Your task to perform on an android device: Search for "dell xps" on bestbuy, select the first entry, add it to the cart, then select checkout. Image 0: 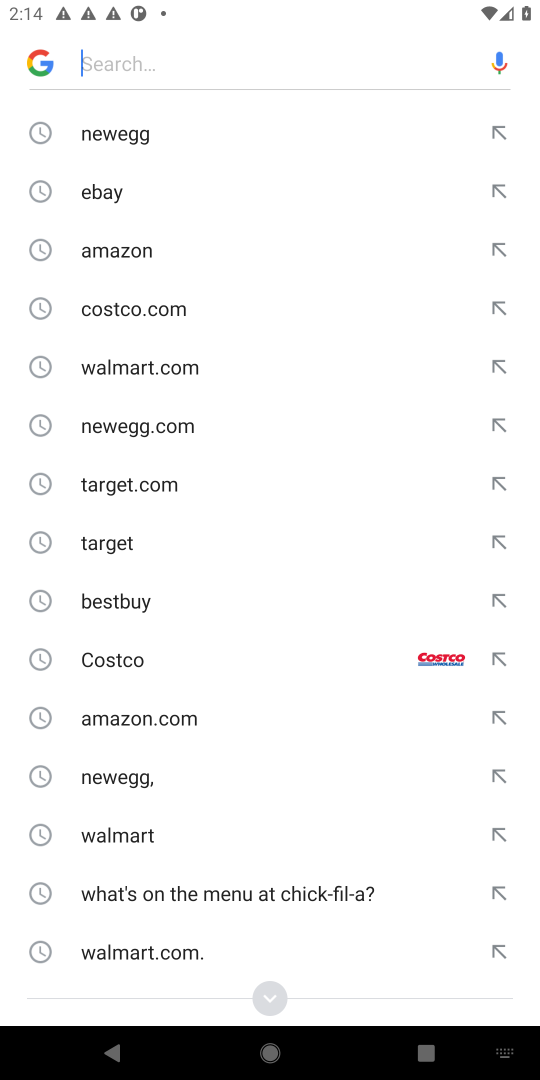
Step 0: click (129, 611)
Your task to perform on an android device: Search for "dell xps" on bestbuy, select the first entry, add it to the cart, then select checkout. Image 1: 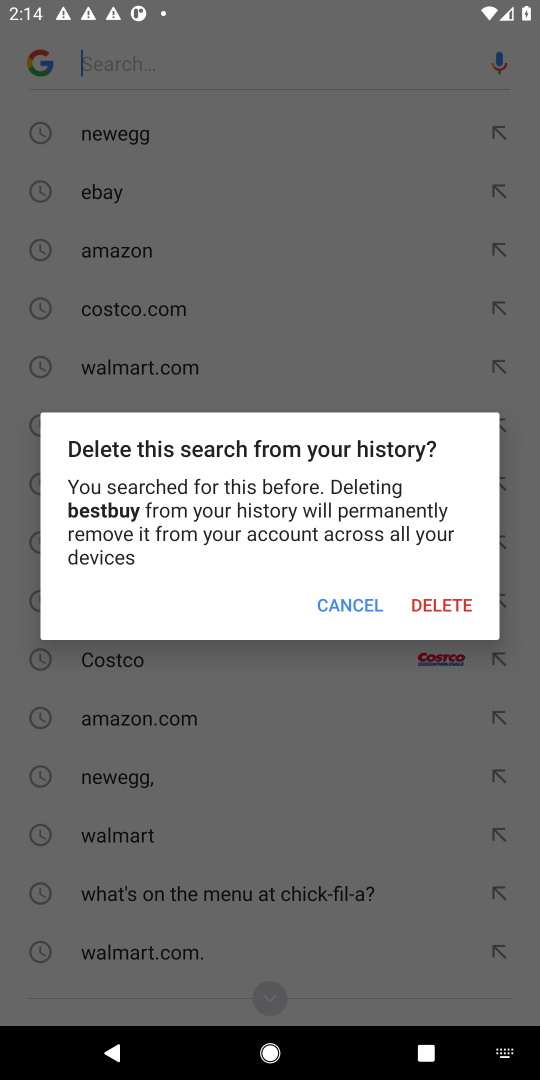
Step 1: click (340, 595)
Your task to perform on an android device: Search for "dell xps" on bestbuy, select the first entry, add it to the cart, then select checkout. Image 2: 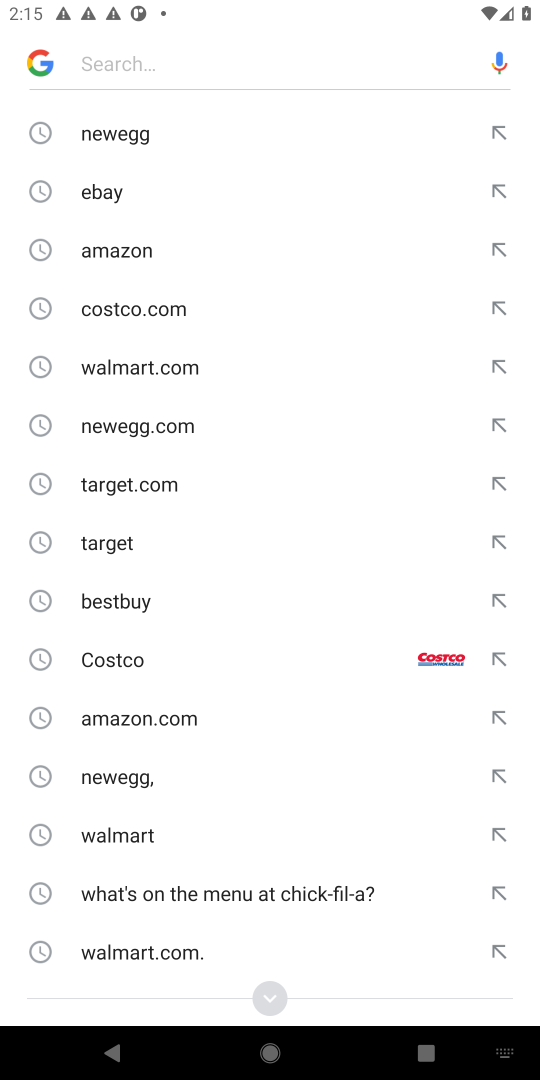
Step 2: click (140, 599)
Your task to perform on an android device: Search for "dell xps" on bestbuy, select the first entry, add it to the cart, then select checkout. Image 3: 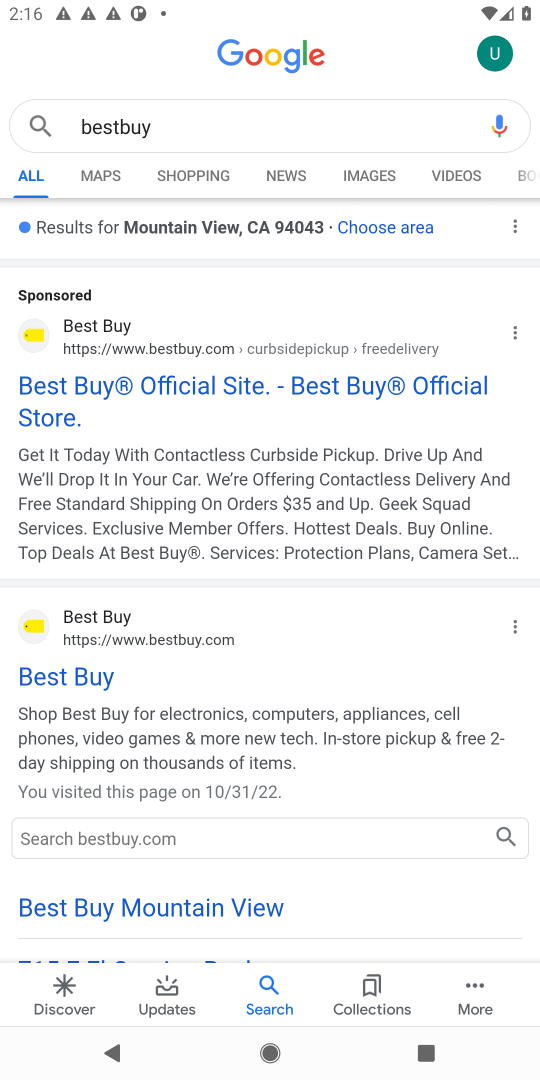
Step 3: click (314, 362)
Your task to perform on an android device: Search for "dell xps" on bestbuy, select the first entry, add it to the cart, then select checkout. Image 4: 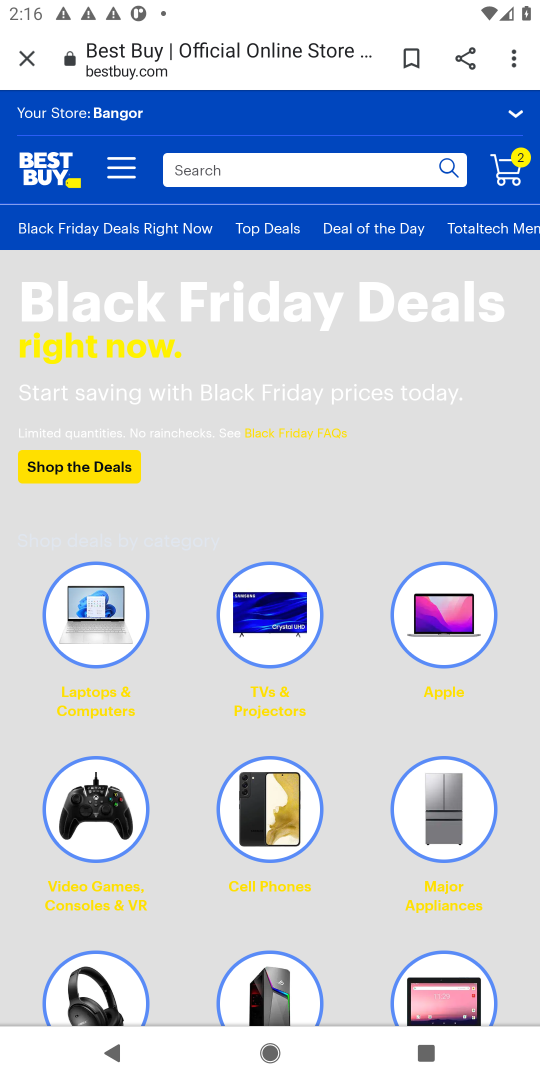
Step 4: click (263, 172)
Your task to perform on an android device: Search for "dell xps" on bestbuy, select the first entry, add it to the cart, then select checkout. Image 5: 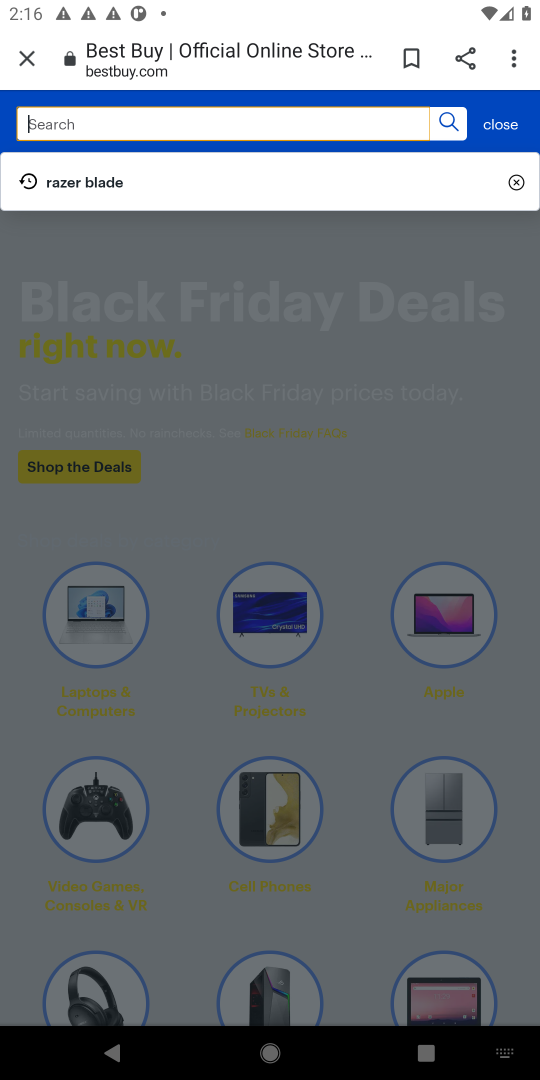
Step 5: type "dell xps"
Your task to perform on an android device: Search for "dell xps" on bestbuy, select the first entry, add it to the cart, then select checkout. Image 6: 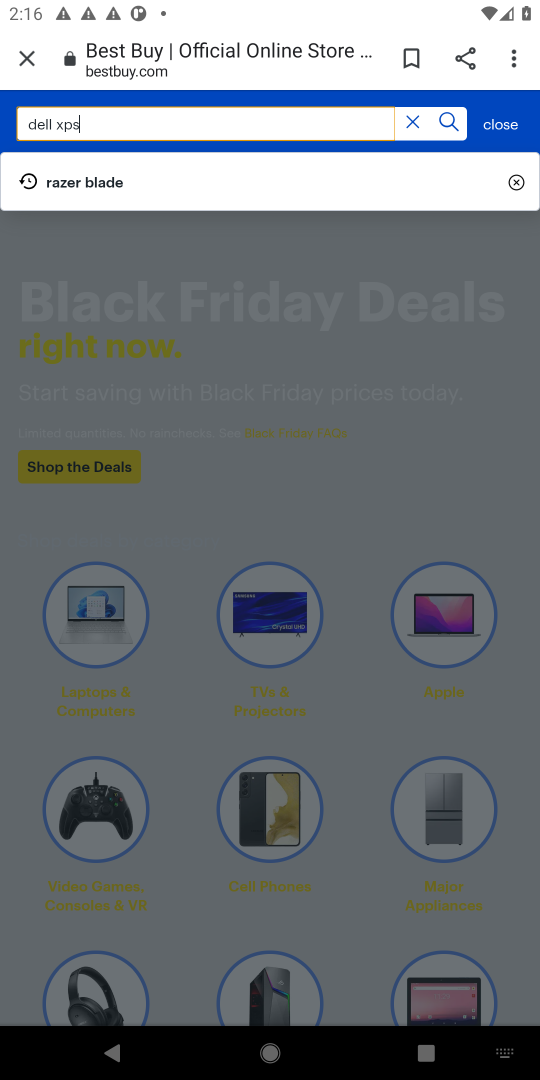
Step 6: type ""
Your task to perform on an android device: Search for "dell xps" on bestbuy, select the first entry, add it to the cart, then select checkout. Image 7: 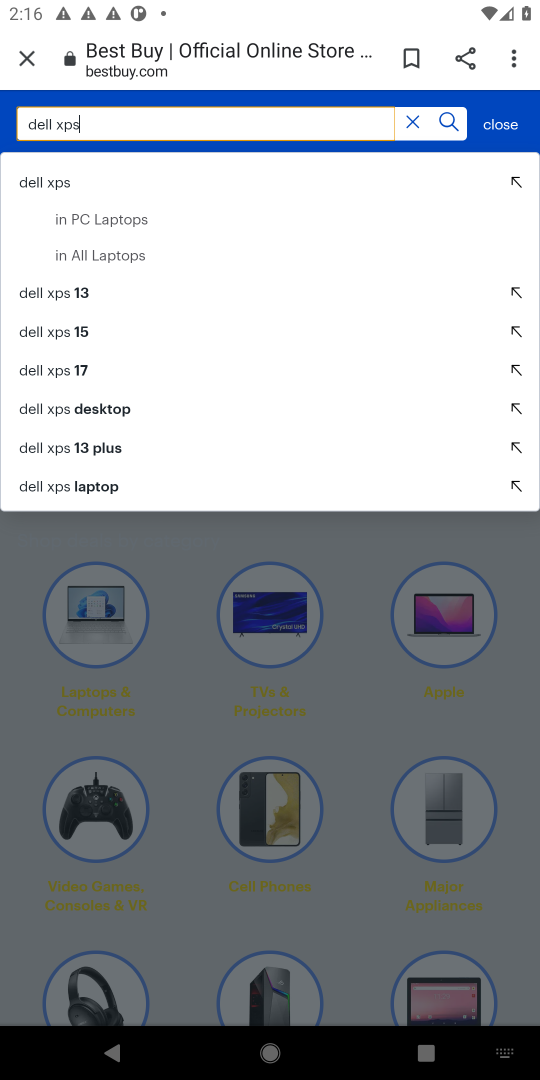
Step 7: press enter
Your task to perform on an android device: Search for "dell xps" on bestbuy, select the first entry, add it to the cart, then select checkout. Image 8: 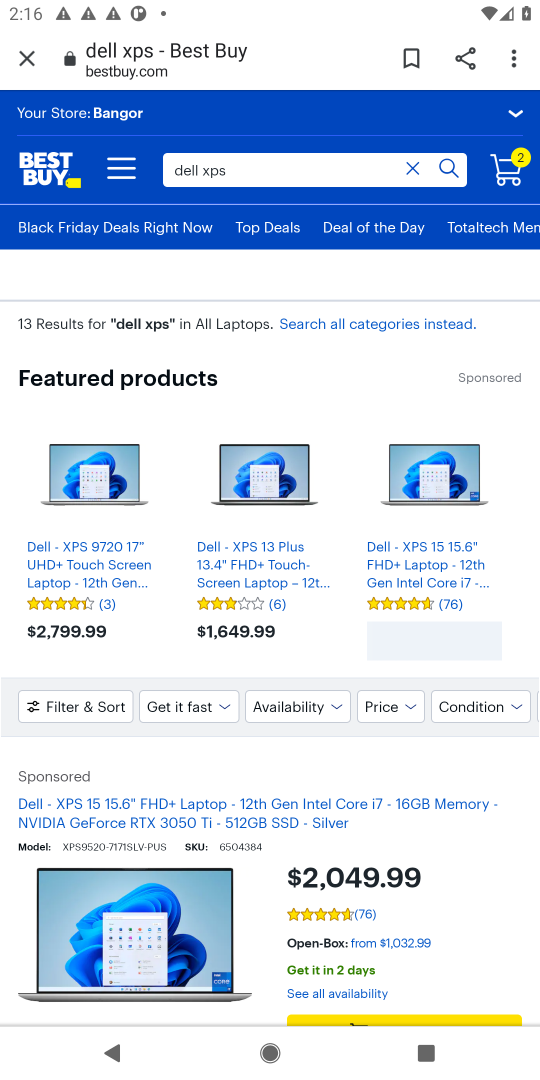
Step 8: click (449, 169)
Your task to perform on an android device: Search for "dell xps" on bestbuy, select the first entry, add it to the cart, then select checkout. Image 9: 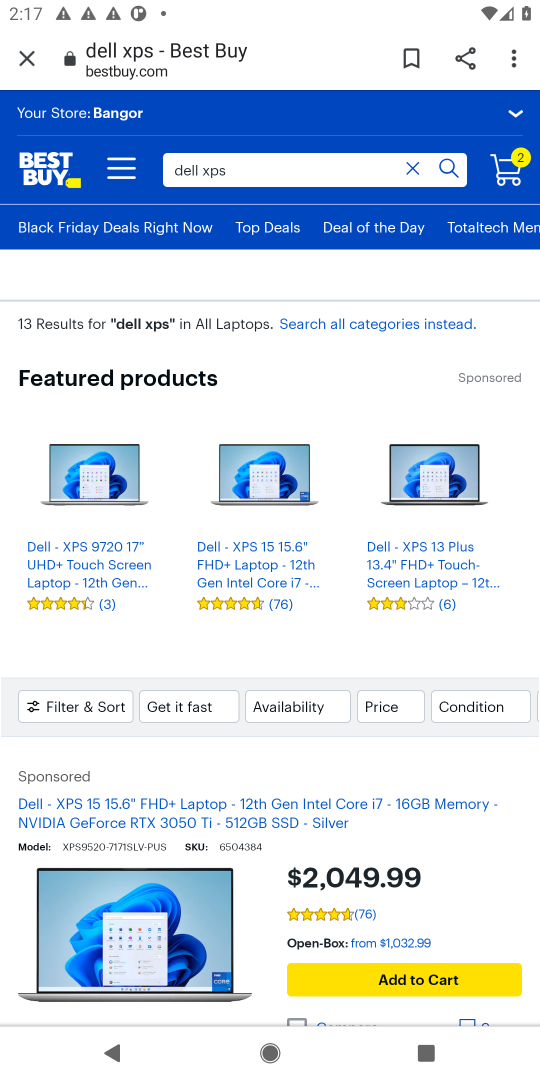
Step 9: drag from (381, 817) to (387, 645)
Your task to perform on an android device: Search for "dell xps" on bestbuy, select the first entry, add it to the cart, then select checkout. Image 10: 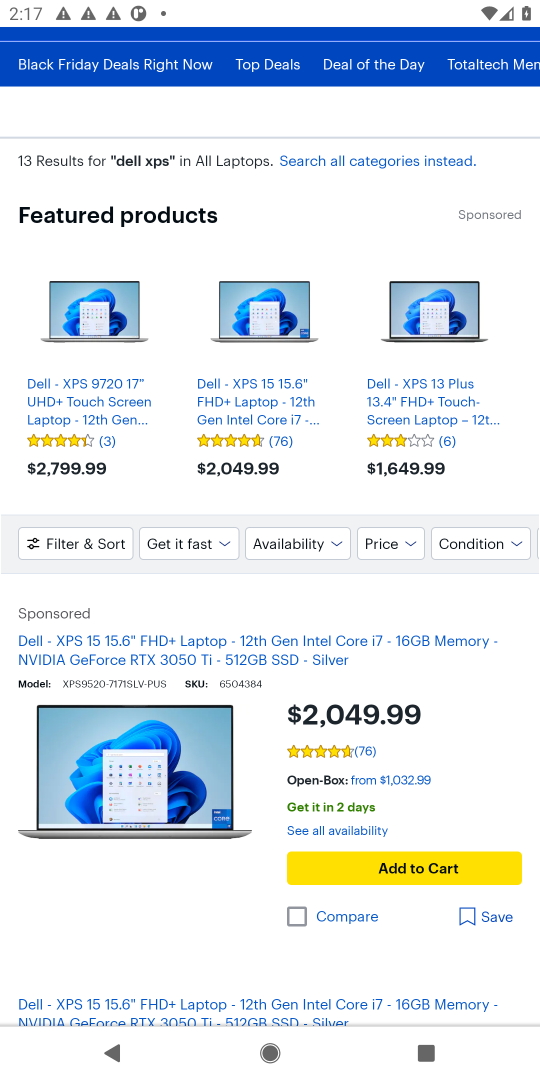
Step 10: click (413, 815)
Your task to perform on an android device: Search for "dell xps" on bestbuy, select the first entry, add it to the cart, then select checkout. Image 11: 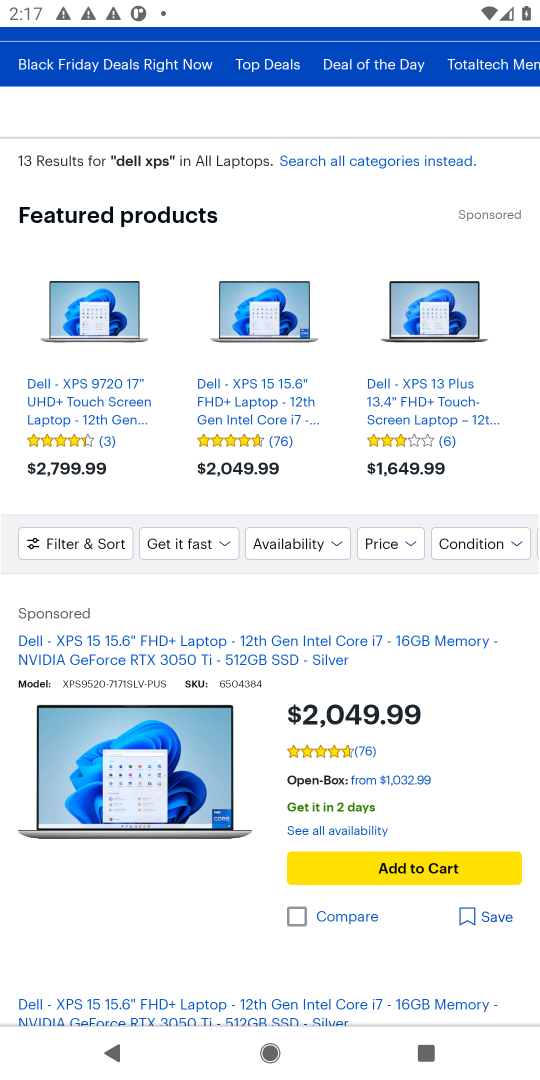
Step 11: click (428, 864)
Your task to perform on an android device: Search for "dell xps" on bestbuy, select the first entry, add it to the cart, then select checkout. Image 12: 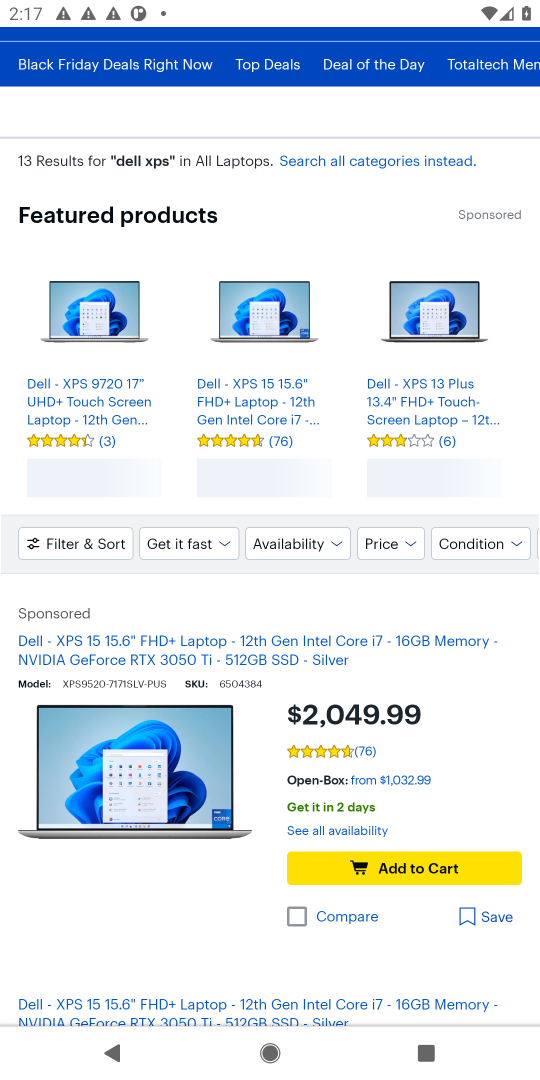
Step 12: click (446, 901)
Your task to perform on an android device: Search for "dell xps" on bestbuy, select the first entry, add it to the cart, then select checkout. Image 13: 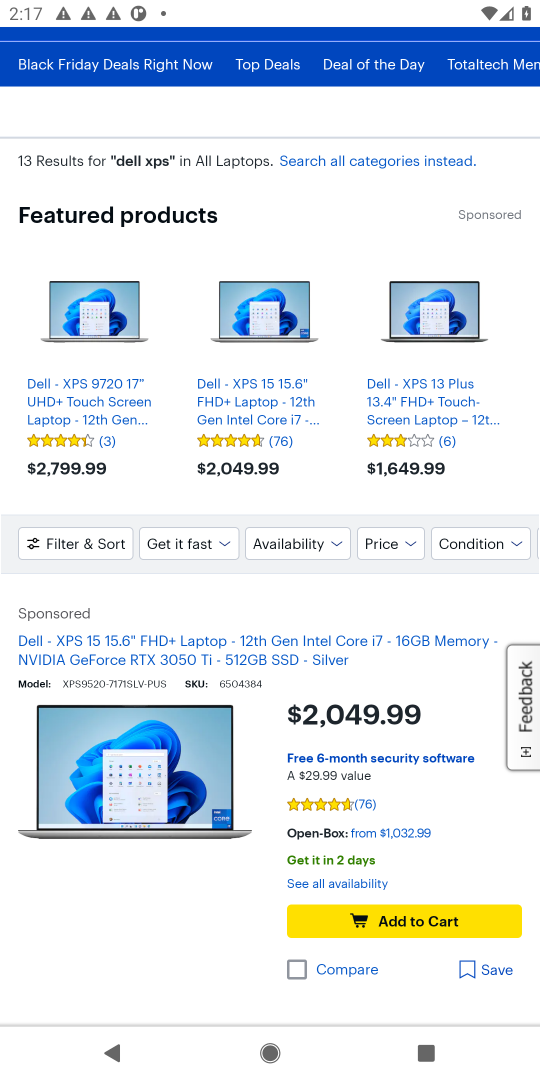
Step 13: click (421, 915)
Your task to perform on an android device: Search for "dell xps" on bestbuy, select the first entry, add it to the cart, then select checkout. Image 14: 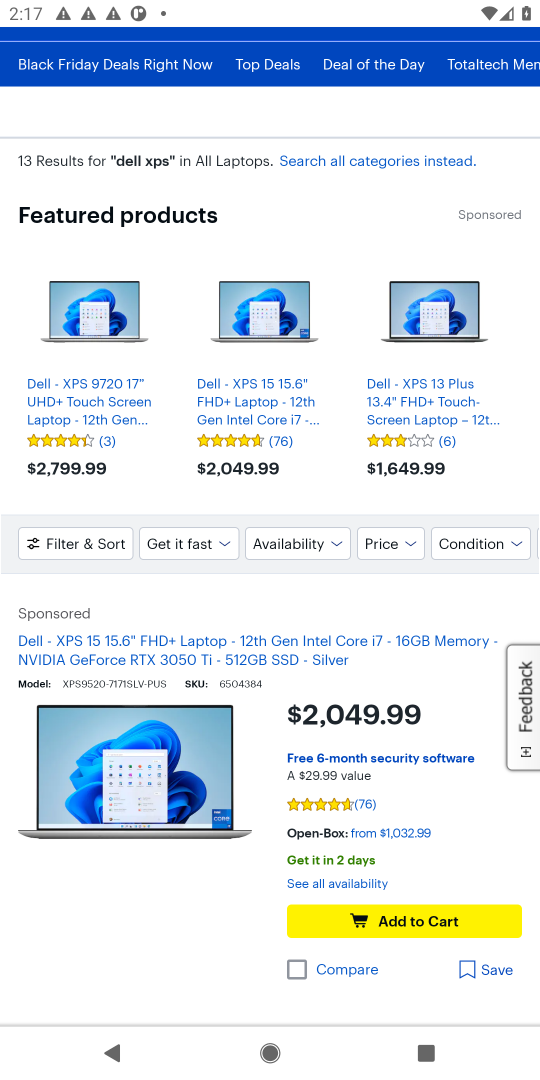
Step 14: click (421, 915)
Your task to perform on an android device: Search for "dell xps" on bestbuy, select the first entry, add it to the cart, then select checkout. Image 15: 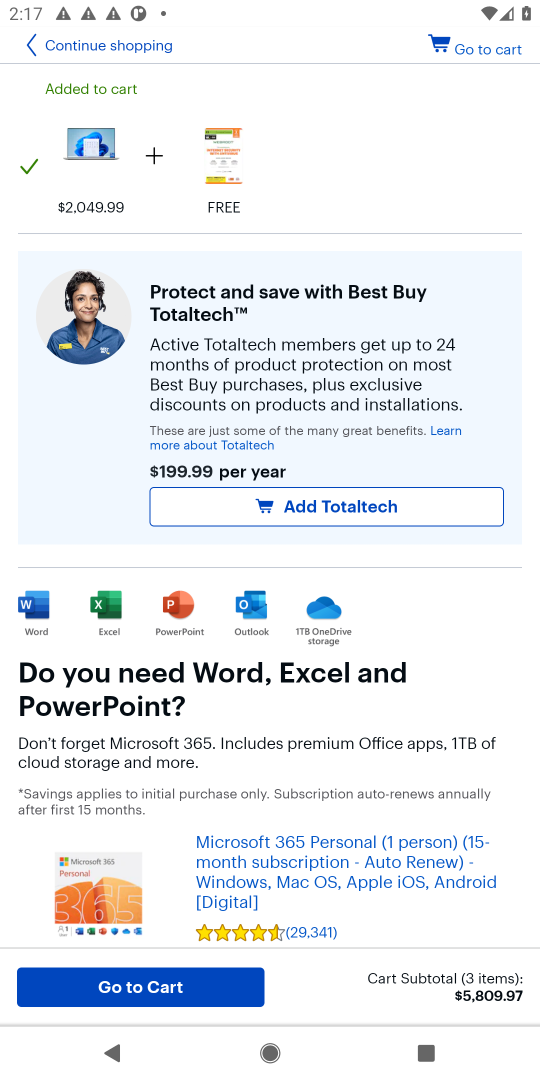
Step 15: click (191, 988)
Your task to perform on an android device: Search for "dell xps" on bestbuy, select the first entry, add it to the cart, then select checkout. Image 16: 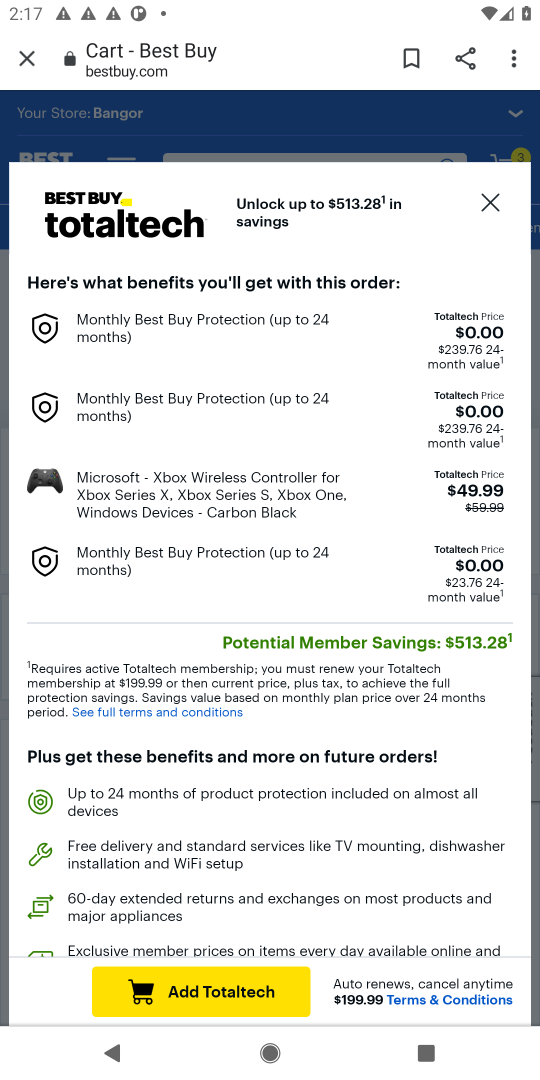
Step 16: click (194, 988)
Your task to perform on an android device: Search for "dell xps" on bestbuy, select the first entry, add it to the cart, then select checkout. Image 17: 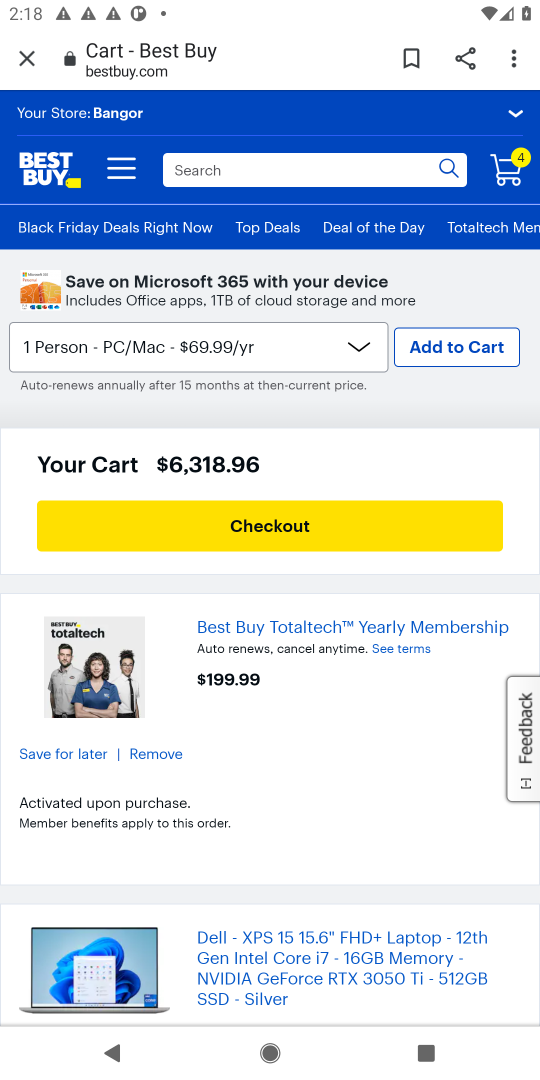
Step 17: click (294, 528)
Your task to perform on an android device: Search for "dell xps" on bestbuy, select the first entry, add it to the cart, then select checkout. Image 18: 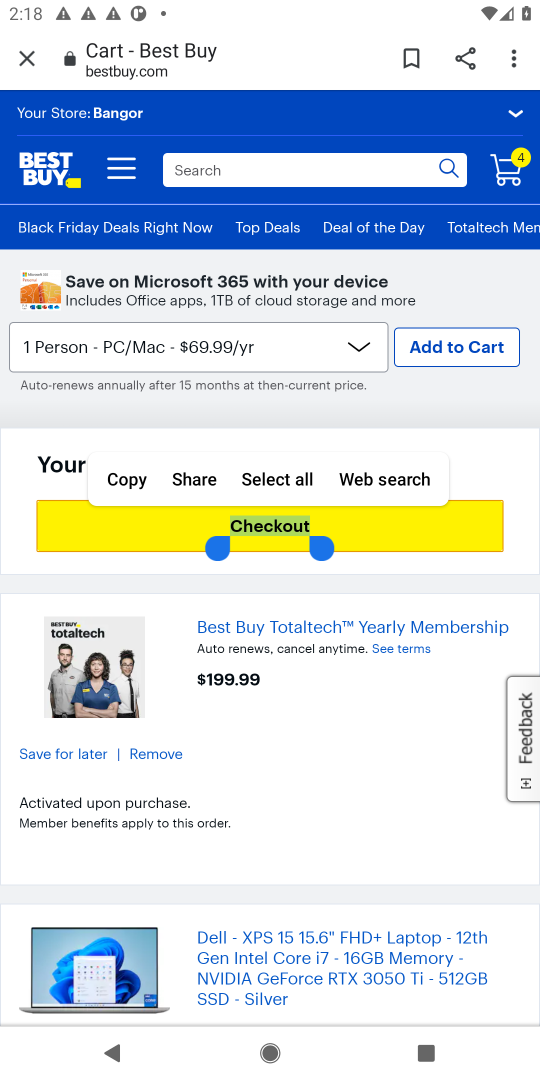
Step 18: click (281, 539)
Your task to perform on an android device: Search for "dell xps" on bestbuy, select the first entry, add it to the cart, then select checkout. Image 19: 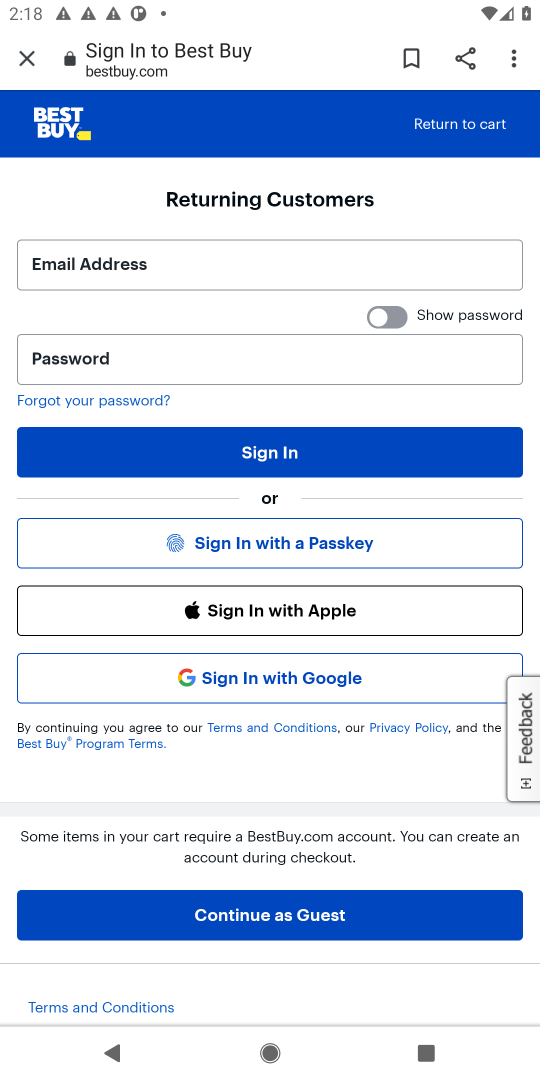
Step 19: task complete